Your task to perform on an android device: Is it going to rain tomorrow? Image 0: 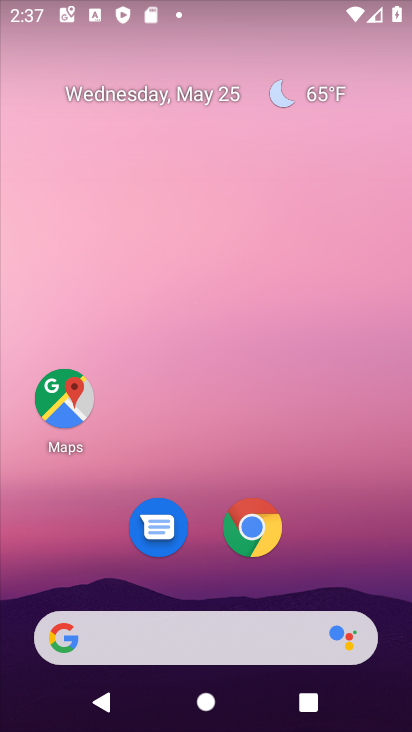
Step 0: drag from (268, 514) to (309, 15)
Your task to perform on an android device: Is it going to rain tomorrow? Image 1: 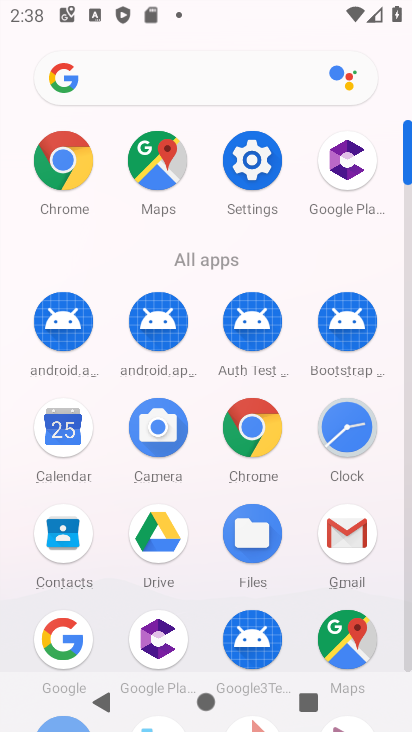
Step 1: press home button
Your task to perform on an android device: Is it going to rain tomorrow? Image 2: 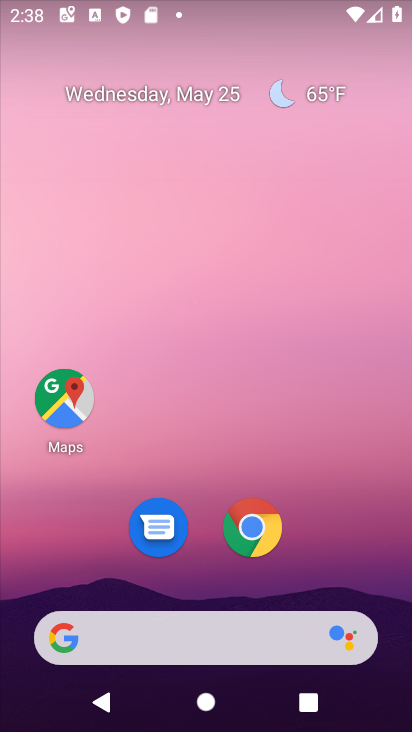
Step 2: drag from (77, 261) to (386, 264)
Your task to perform on an android device: Is it going to rain tomorrow? Image 3: 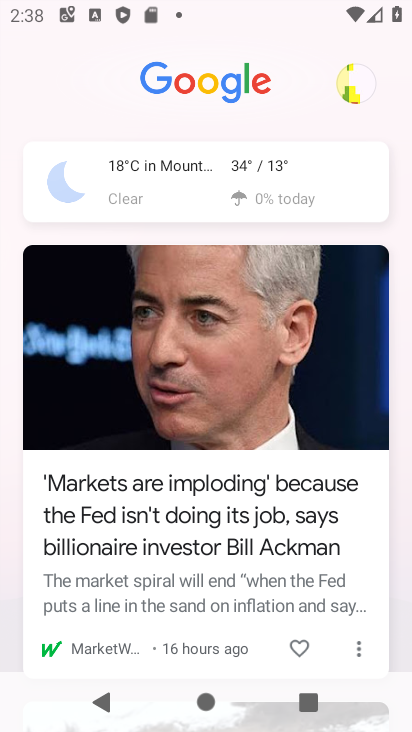
Step 3: click (238, 195)
Your task to perform on an android device: Is it going to rain tomorrow? Image 4: 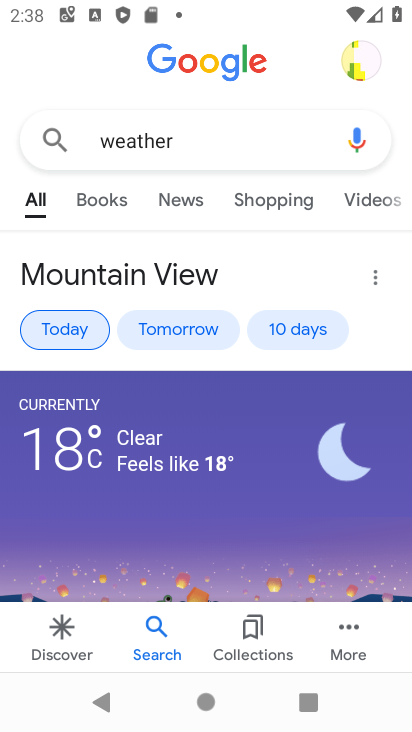
Step 4: click (177, 328)
Your task to perform on an android device: Is it going to rain tomorrow? Image 5: 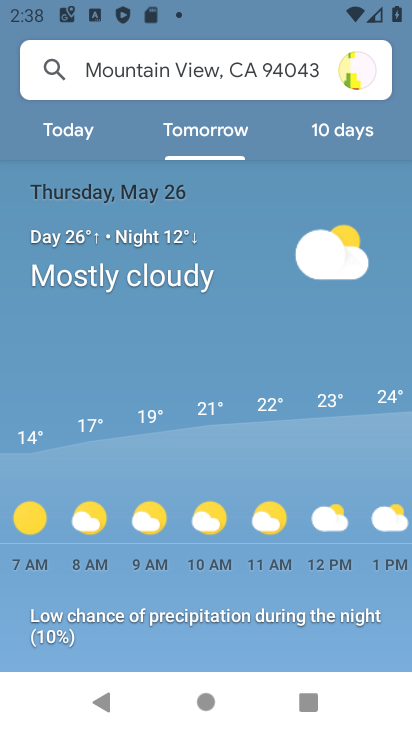
Step 5: task complete